Your task to perform on an android device: turn smart compose on in the gmail app Image 0: 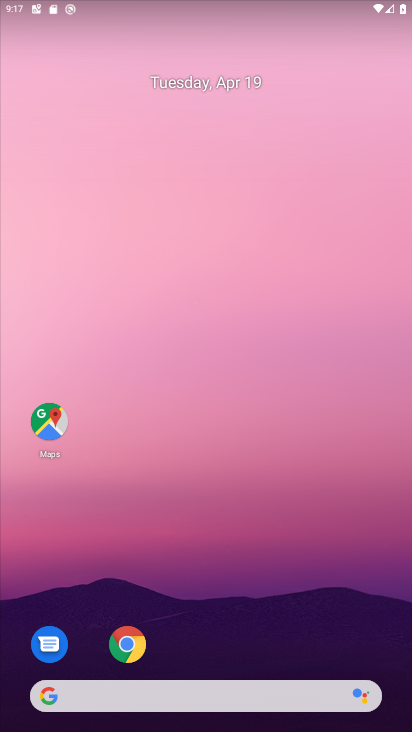
Step 0: drag from (229, 626) to (272, 112)
Your task to perform on an android device: turn smart compose on in the gmail app Image 1: 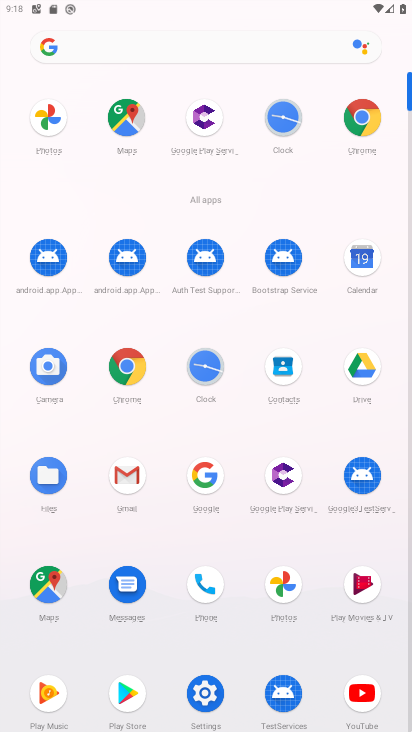
Step 1: click (132, 470)
Your task to perform on an android device: turn smart compose on in the gmail app Image 2: 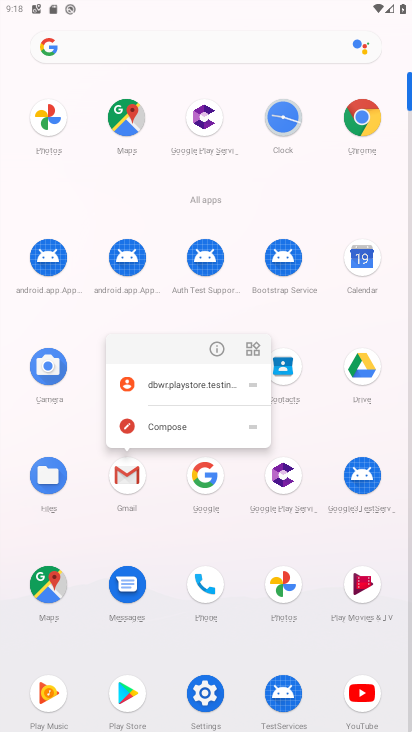
Step 2: click (134, 474)
Your task to perform on an android device: turn smart compose on in the gmail app Image 3: 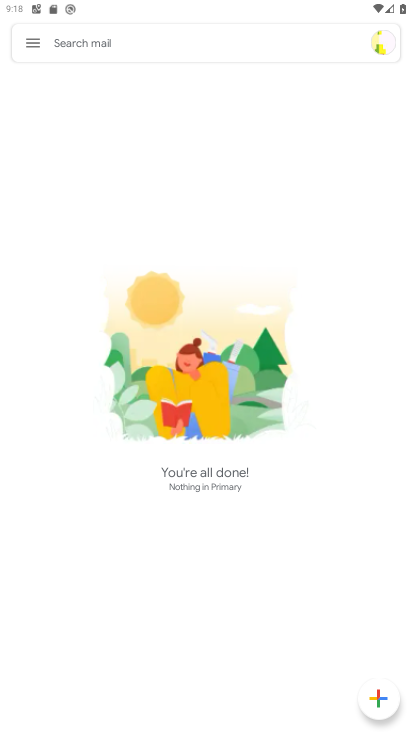
Step 3: click (30, 37)
Your task to perform on an android device: turn smart compose on in the gmail app Image 4: 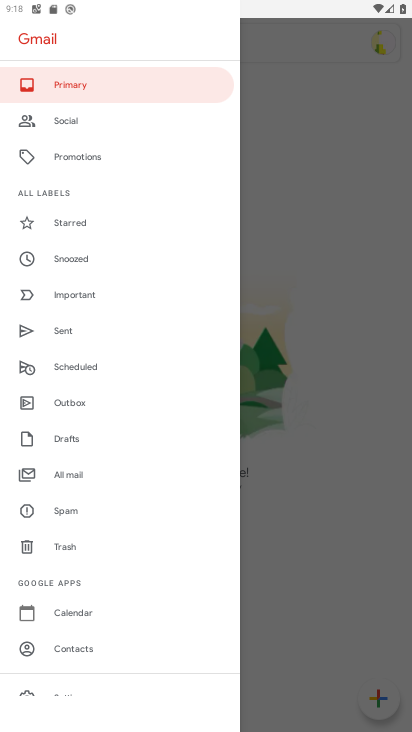
Step 4: drag from (123, 562) to (133, 263)
Your task to perform on an android device: turn smart compose on in the gmail app Image 5: 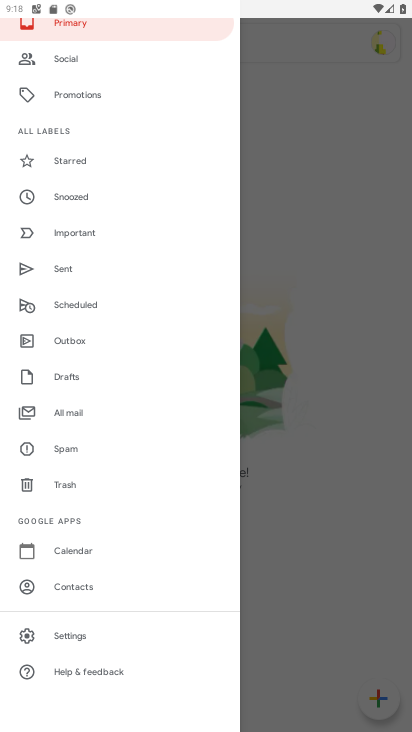
Step 5: click (77, 628)
Your task to perform on an android device: turn smart compose on in the gmail app Image 6: 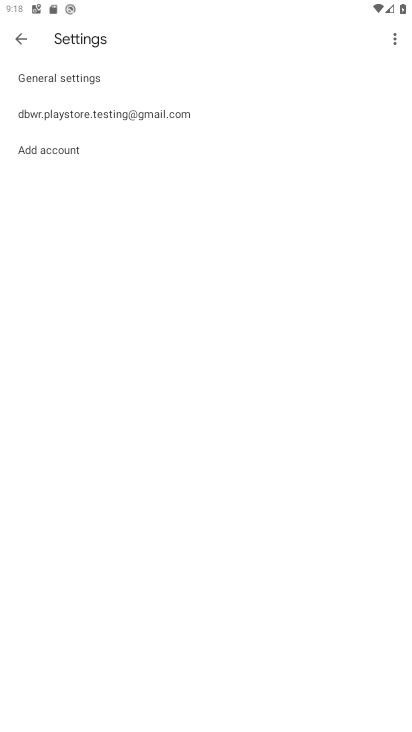
Step 6: click (175, 116)
Your task to perform on an android device: turn smart compose on in the gmail app Image 7: 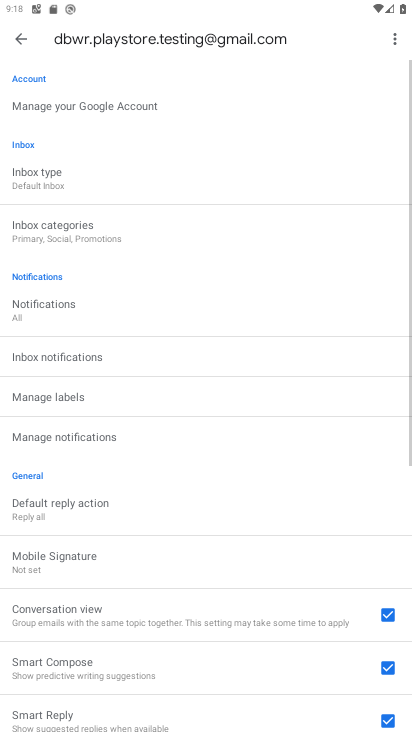
Step 7: task complete